Your task to perform on an android device: Go to notification settings Image 0: 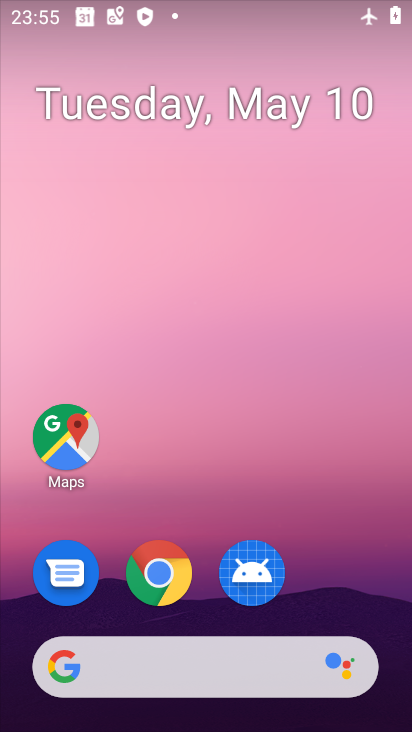
Step 0: drag from (322, 525) to (249, 18)
Your task to perform on an android device: Go to notification settings Image 1: 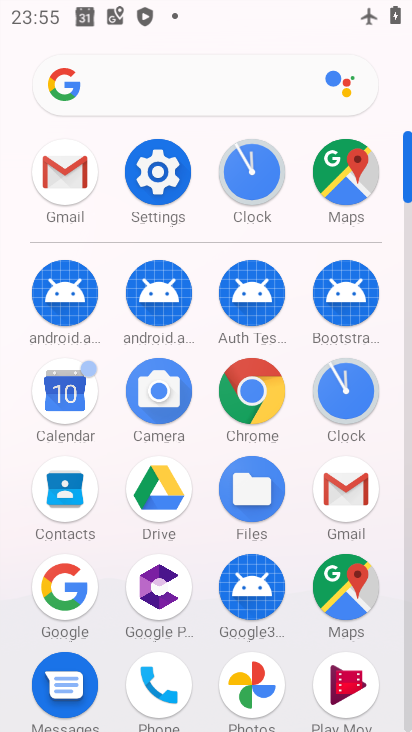
Step 1: click (154, 172)
Your task to perform on an android device: Go to notification settings Image 2: 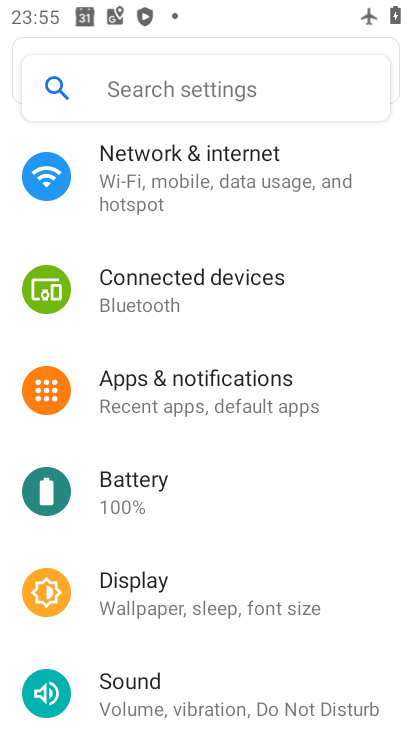
Step 2: click (186, 385)
Your task to perform on an android device: Go to notification settings Image 3: 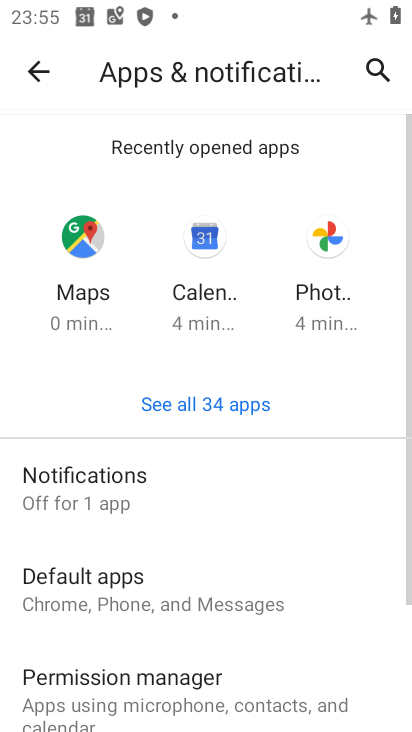
Step 3: task complete